Your task to perform on an android device: Show me popular videos on Youtube Image 0: 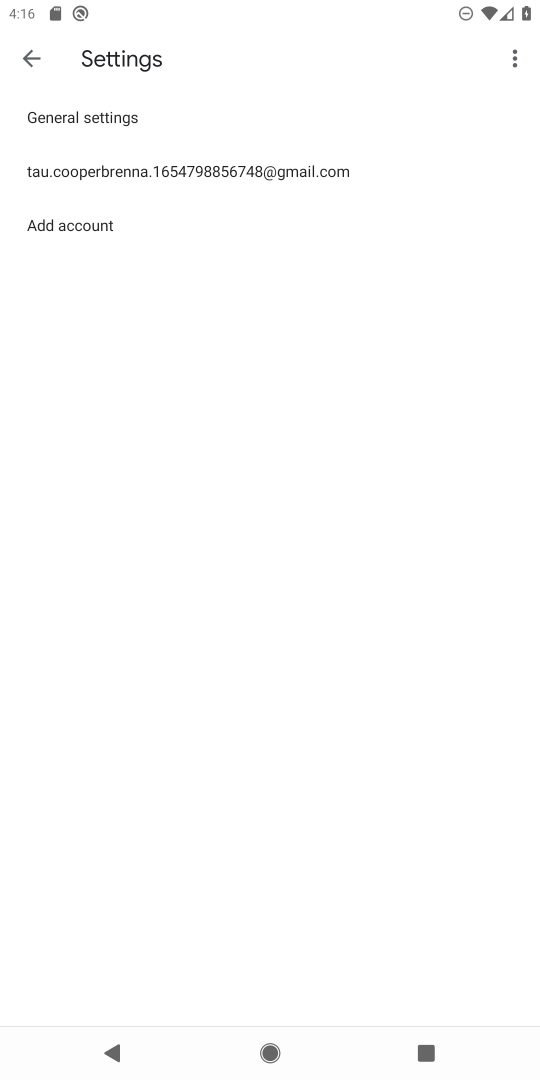
Step 0: press home button
Your task to perform on an android device: Show me popular videos on Youtube Image 1: 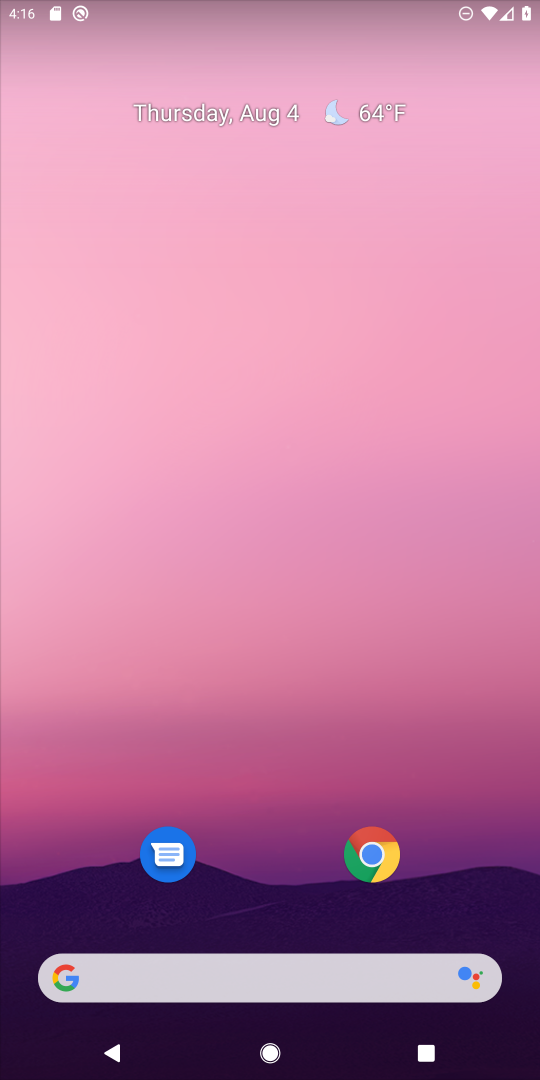
Step 1: drag from (232, 714) to (256, 296)
Your task to perform on an android device: Show me popular videos on Youtube Image 2: 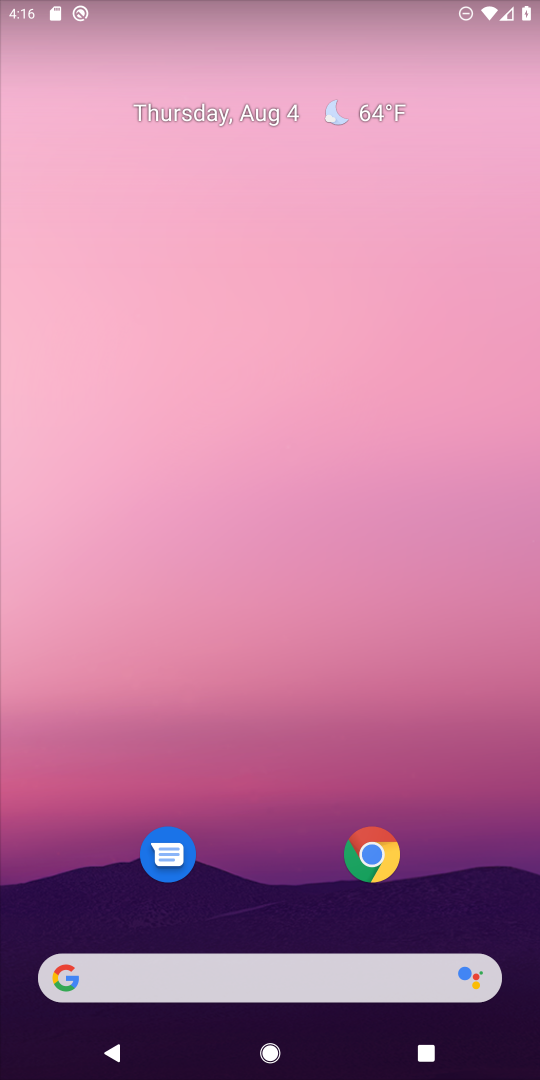
Step 2: click (319, 261)
Your task to perform on an android device: Show me popular videos on Youtube Image 3: 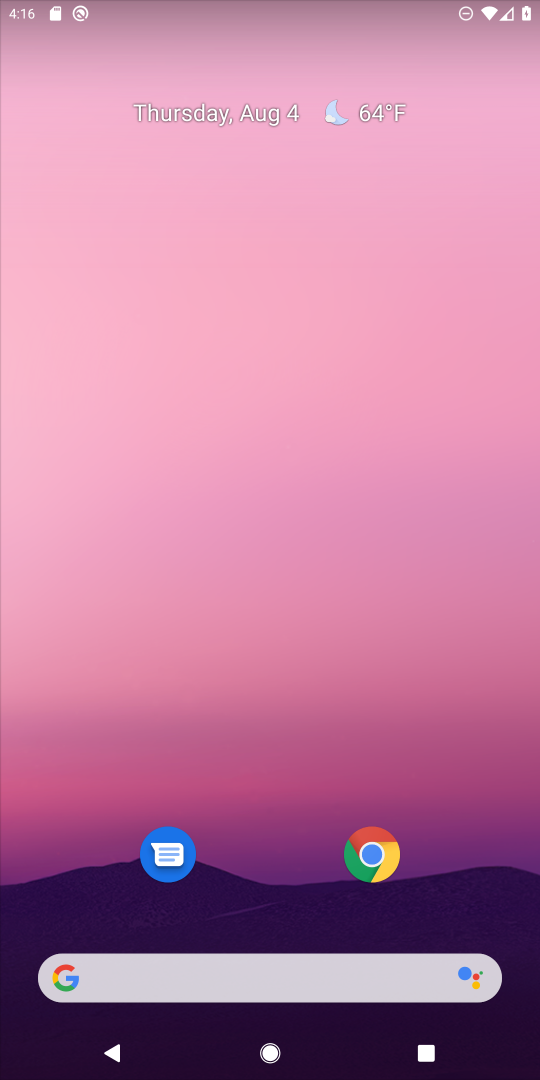
Step 3: drag from (268, 654) to (322, 173)
Your task to perform on an android device: Show me popular videos on Youtube Image 4: 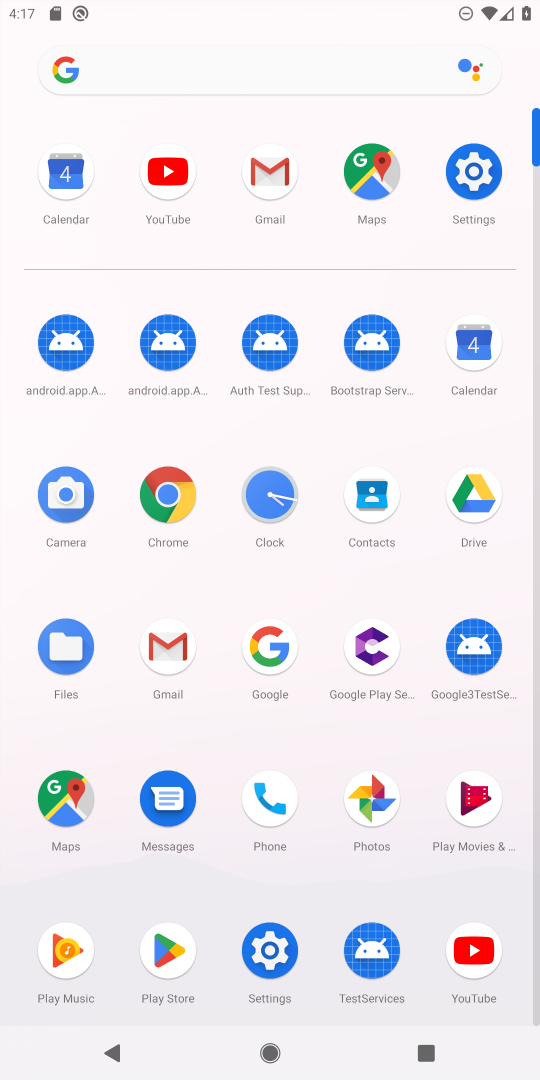
Step 4: click (481, 961)
Your task to perform on an android device: Show me popular videos on Youtube Image 5: 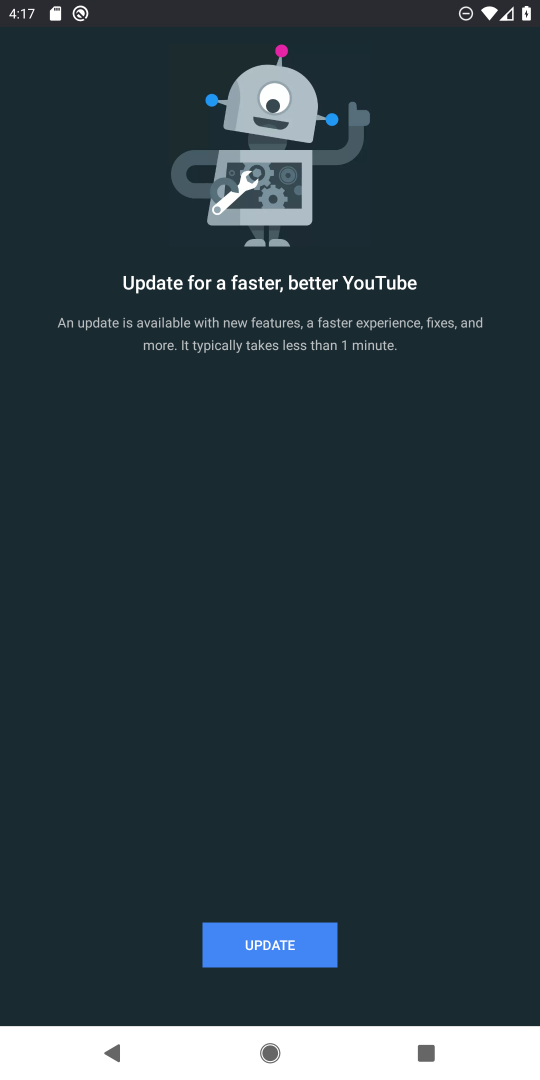
Step 5: task complete